Your task to perform on an android device: turn on the 12-hour format for clock Image 0: 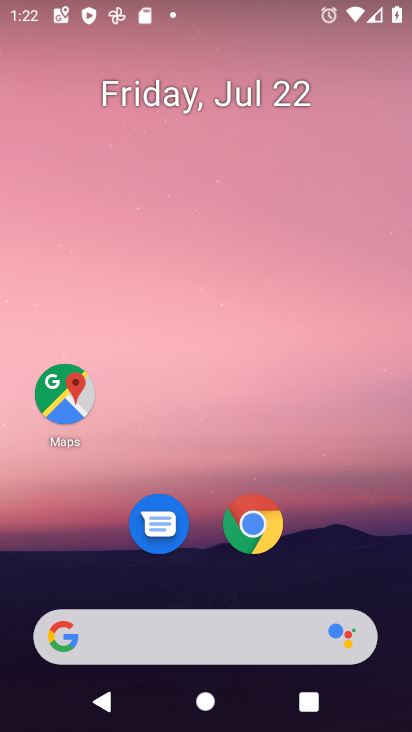
Step 0: drag from (168, 648) to (290, 189)
Your task to perform on an android device: turn on the 12-hour format for clock Image 1: 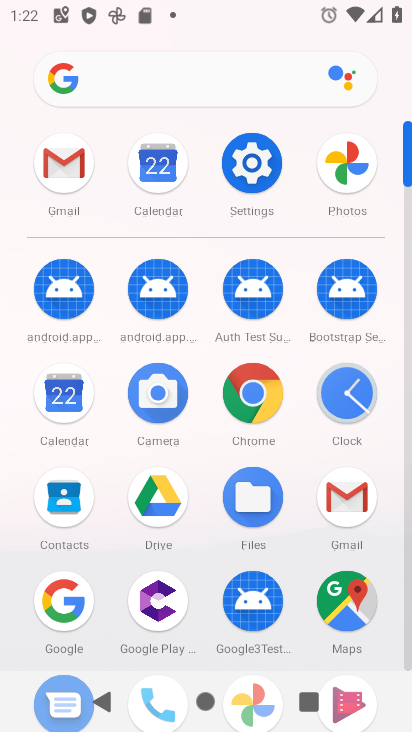
Step 1: click (346, 391)
Your task to perform on an android device: turn on the 12-hour format for clock Image 2: 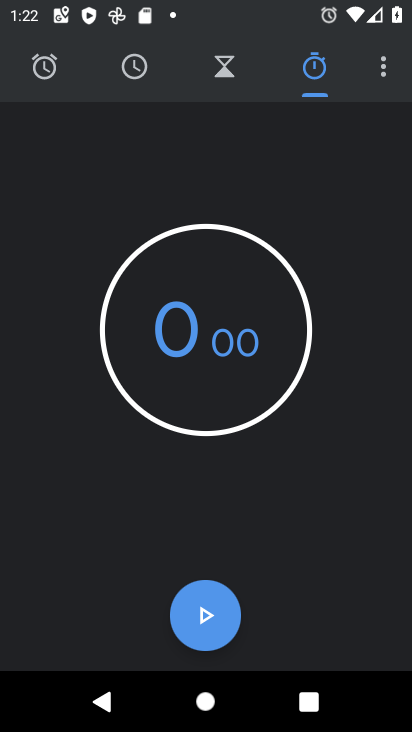
Step 2: click (384, 70)
Your task to perform on an android device: turn on the 12-hour format for clock Image 3: 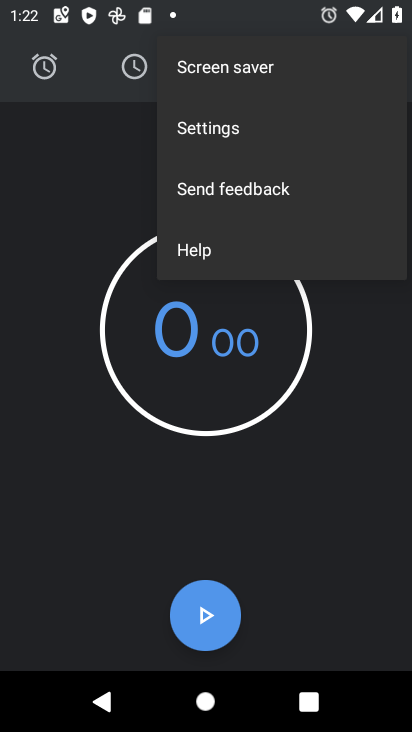
Step 3: click (231, 124)
Your task to perform on an android device: turn on the 12-hour format for clock Image 4: 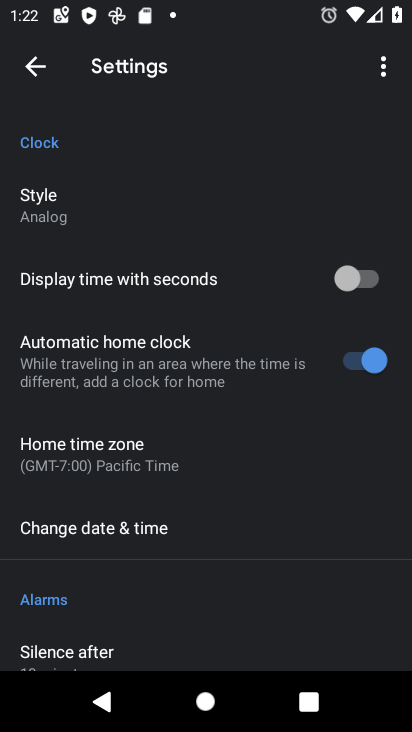
Step 4: click (147, 536)
Your task to perform on an android device: turn on the 12-hour format for clock Image 5: 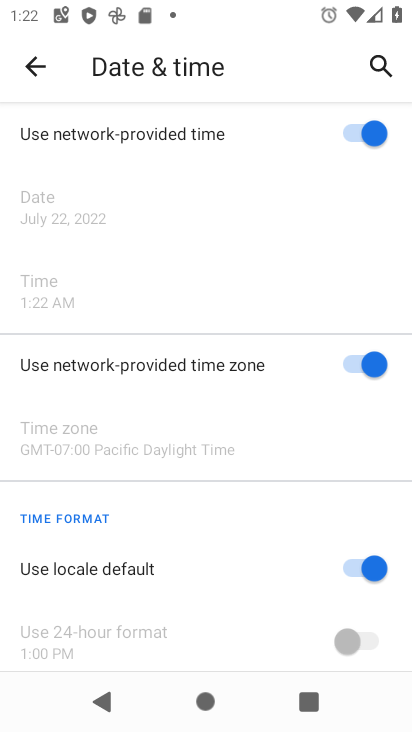
Step 5: task complete